Your task to perform on an android device: add a contact Image 0: 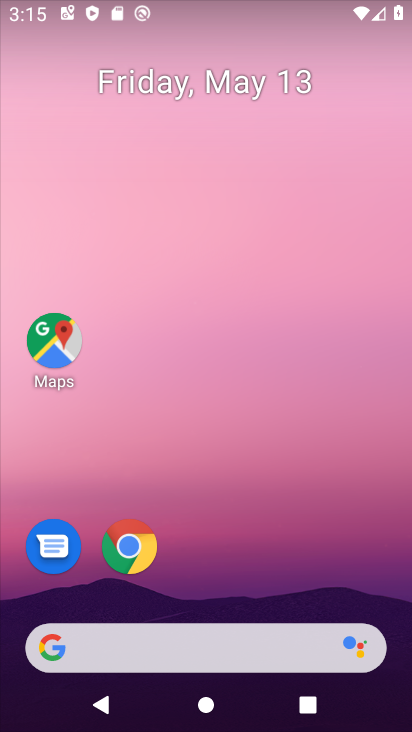
Step 0: drag from (199, 614) to (255, 31)
Your task to perform on an android device: add a contact Image 1: 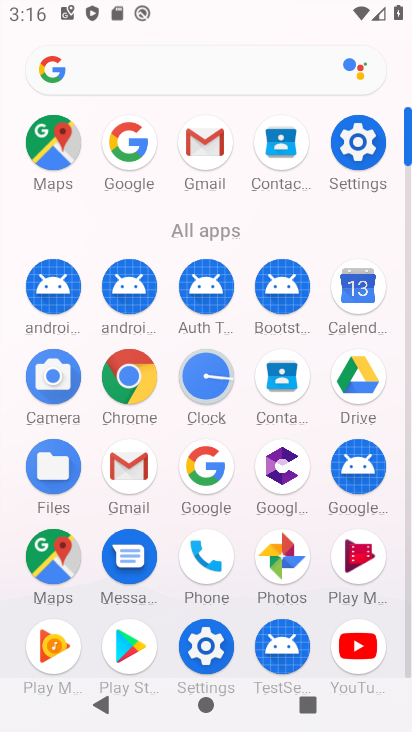
Step 1: click (279, 156)
Your task to perform on an android device: add a contact Image 2: 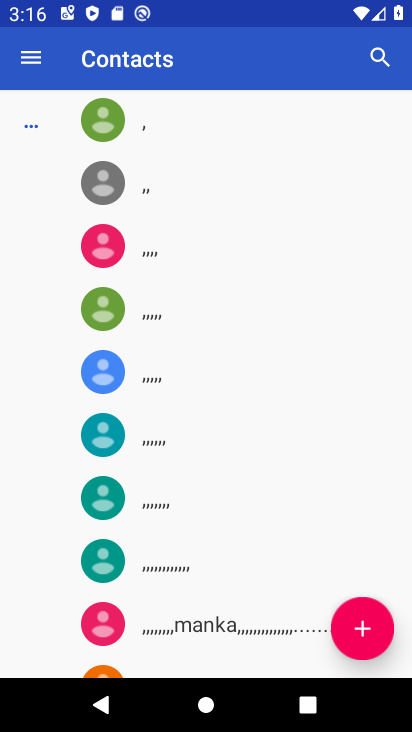
Step 2: click (384, 636)
Your task to perform on an android device: add a contact Image 3: 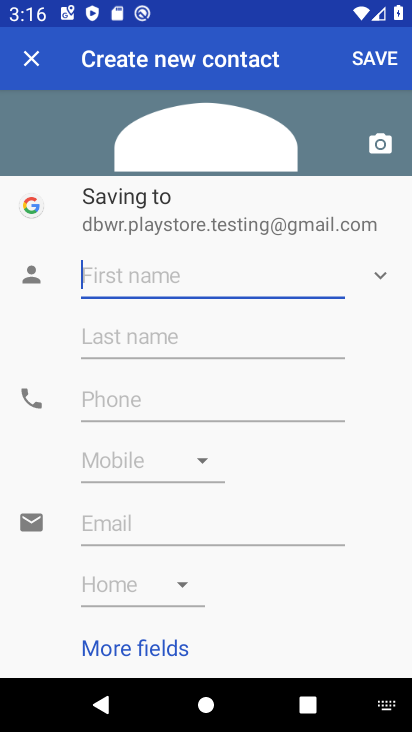
Step 3: type "fdyy"
Your task to perform on an android device: add a contact Image 4: 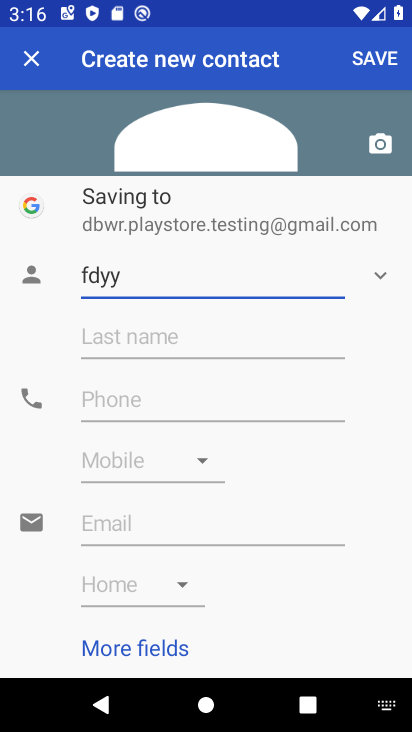
Step 4: click (130, 395)
Your task to perform on an android device: add a contact Image 5: 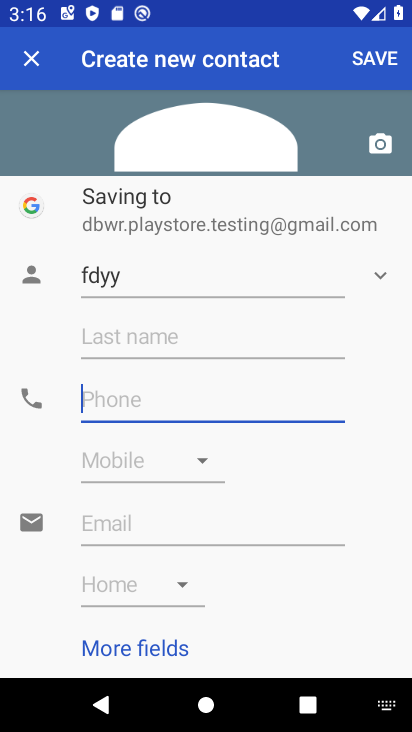
Step 5: click (130, 395)
Your task to perform on an android device: add a contact Image 6: 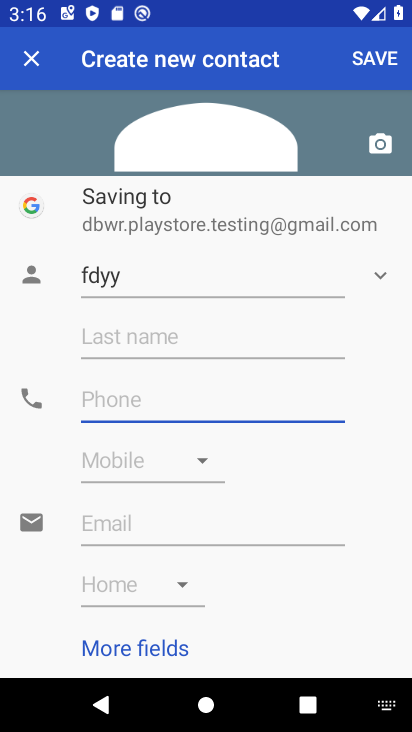
Step 6: type "987654567"
Your task to perform on an android device: add a contact Image 7: 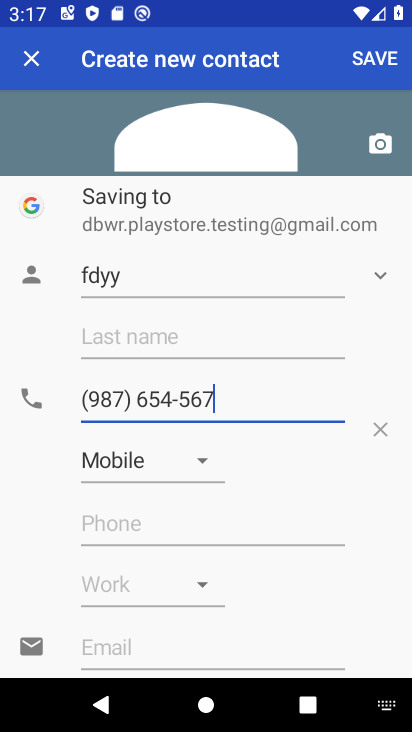
Step 7: click (359, 68)
Your task to perform on an android device: add a contact Image 8: 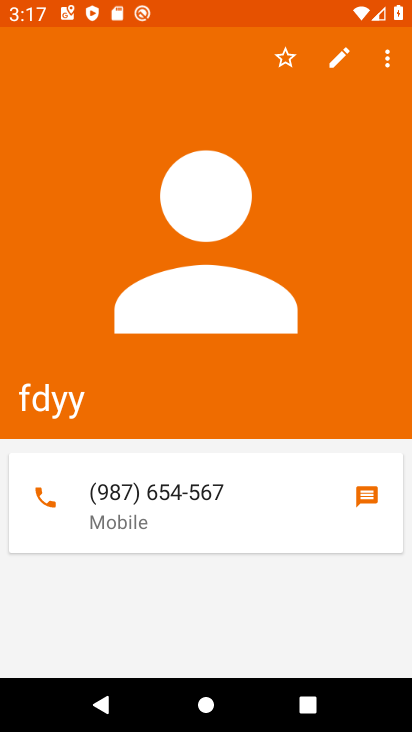
Step 8: task complete